Your task to perform on an android device: show emergency info Image 0: 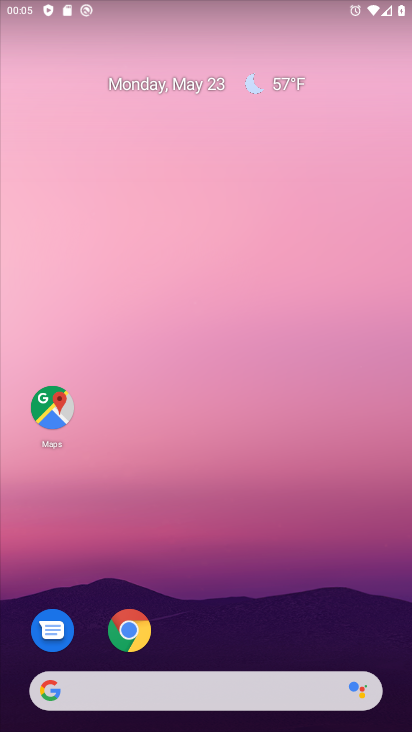
Step 0: drag from (249, 448) to (114, 34)
Your task to perform on an android device: show emergency info Image 1: 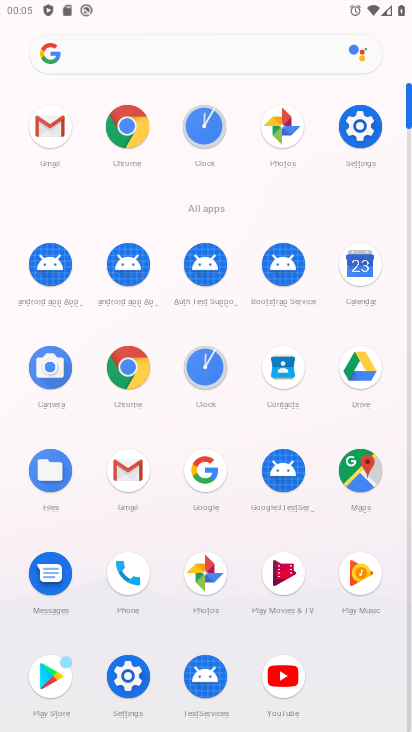
Step 1: click (355, 130)
Your task to perform on an android device: show emergency info Image 2: 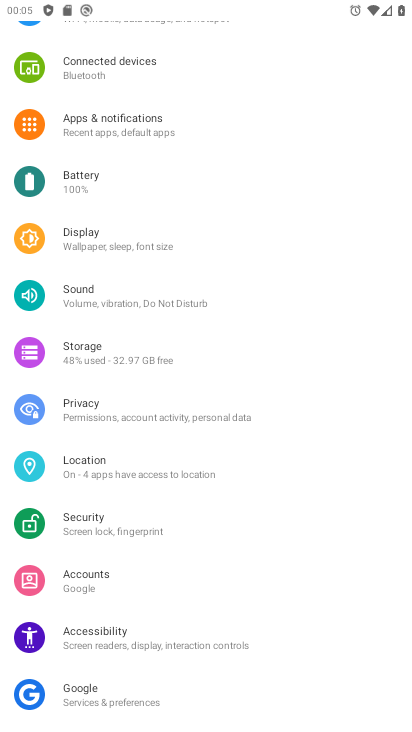
Step 2: drag from (277, 637) to (200, 105)
Your task to perform on an android device: show emergency info Image 3: 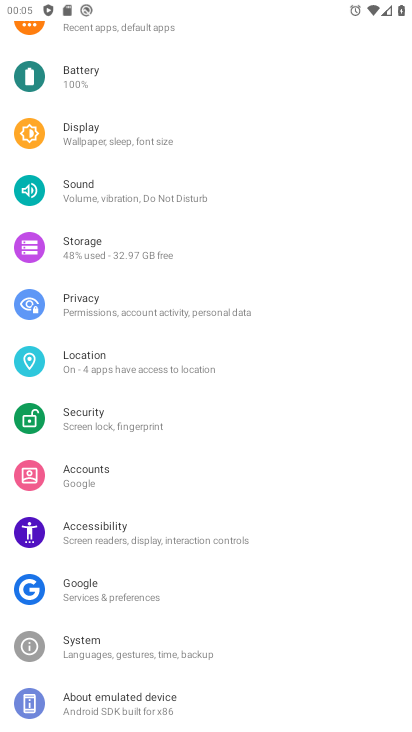
Step 3: click (143, 698)
Your task to perform on an android device: show emergency info Image 4: 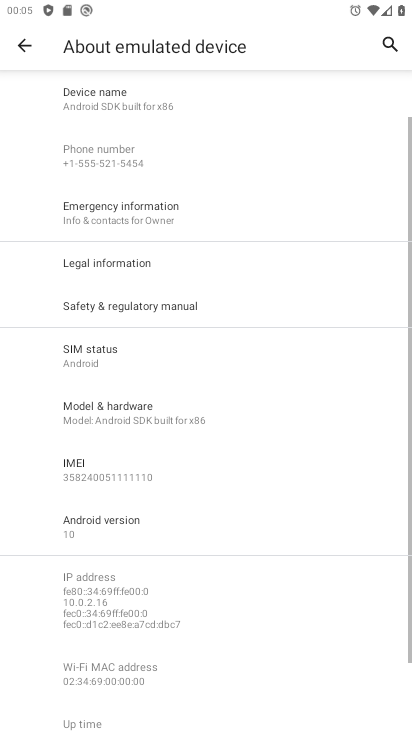
Step 4: click (147, 221)
Your task to perform on an android device: show emergency info Image 5: 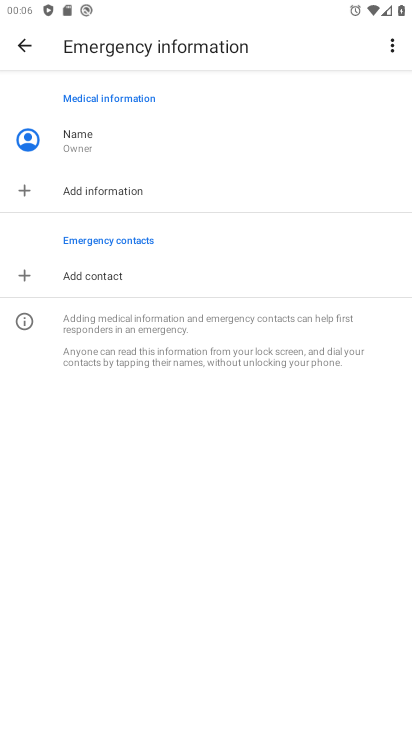
Step 5: task complete